Your task to perform on an android device: Go to location settings Image 0: 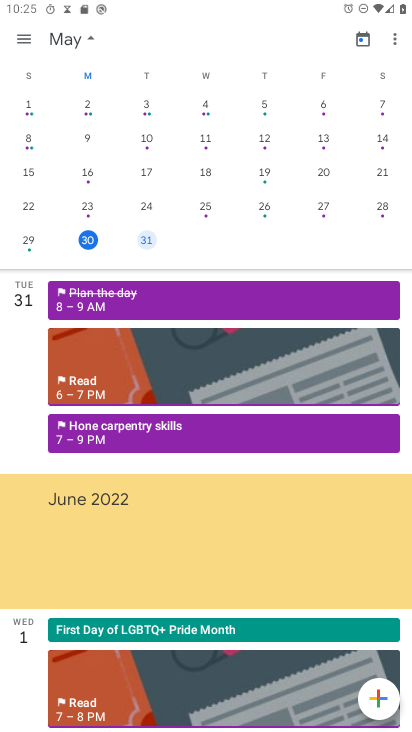
Step 0: press home button
Your task to perform on an android device: Go to location settings Image 1: 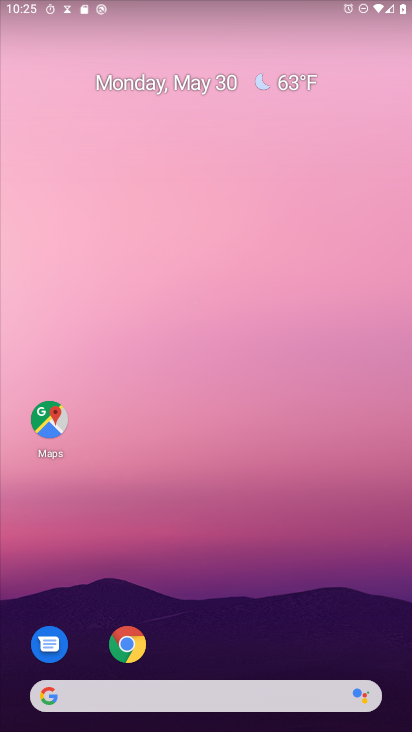
Step 1: drag from (245, 552) to (256, 14)
Your task to perform on an android device: Go to location settings Image 2: 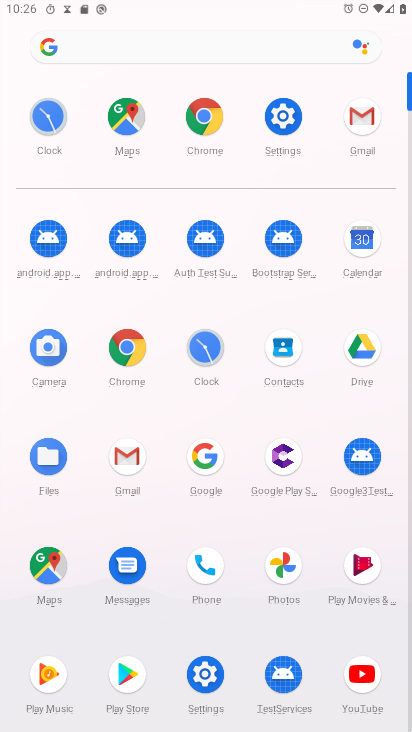
Step 2: click (285, 117)
Your task to perform on an android device: Go to location settings Image 3: 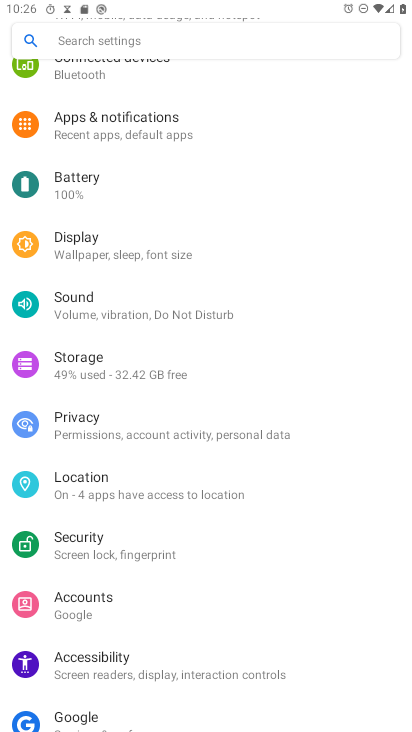
Step 3: click (109, 484)
Your task to perform on an android device: Go to location settings Image 4: 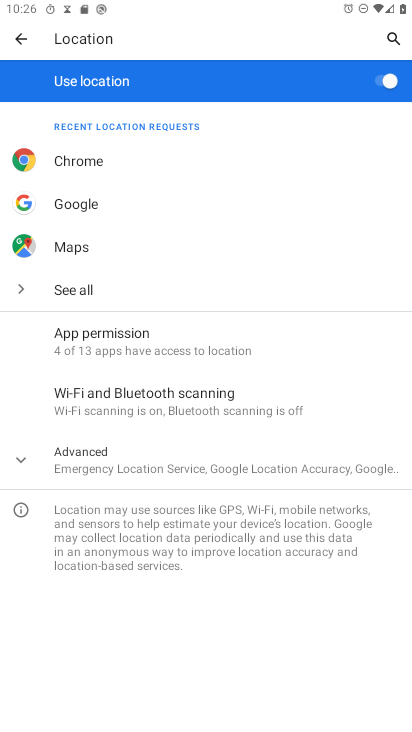
Step 4: click (101, 457)
Your task to perform on an android device: Go to location settings Image 5: 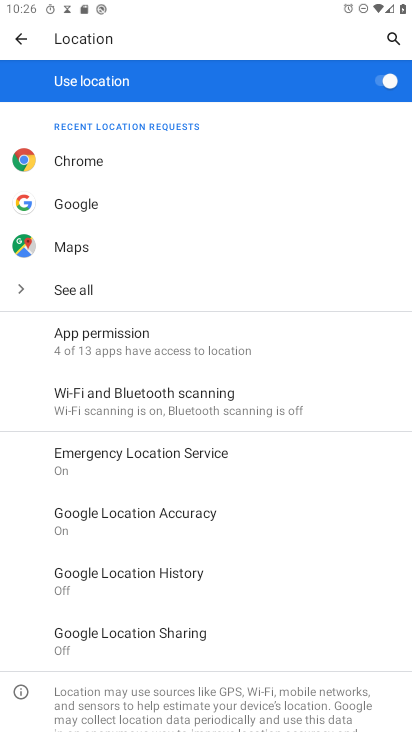
Step 5: task complete